Your task to perform on an android device: open app "Skype" Image 0: 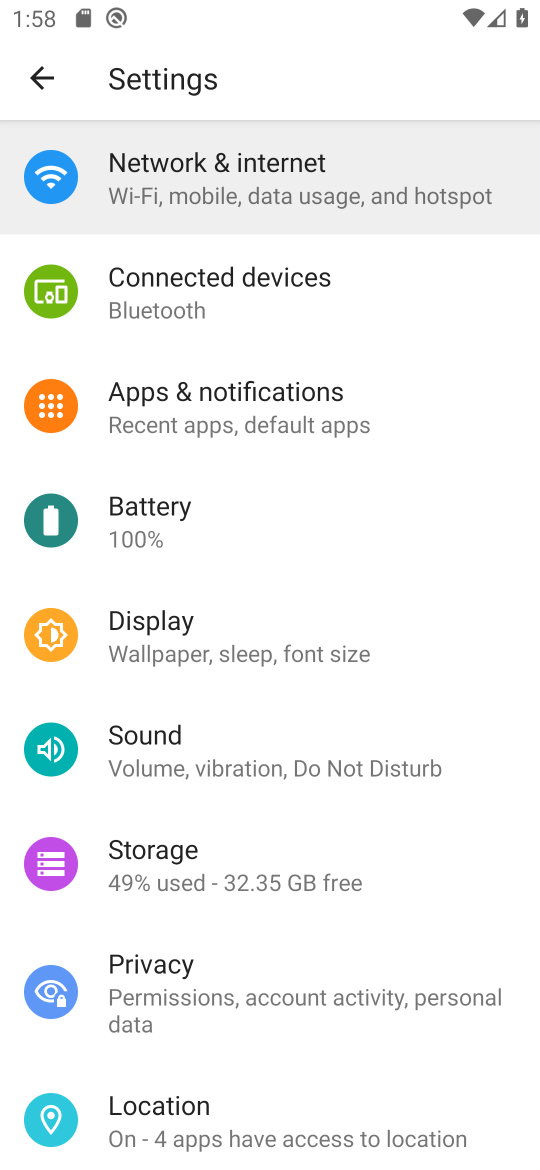
Step 0: press home button
Your task to perform on an android device: open app "Skype" Image 1: 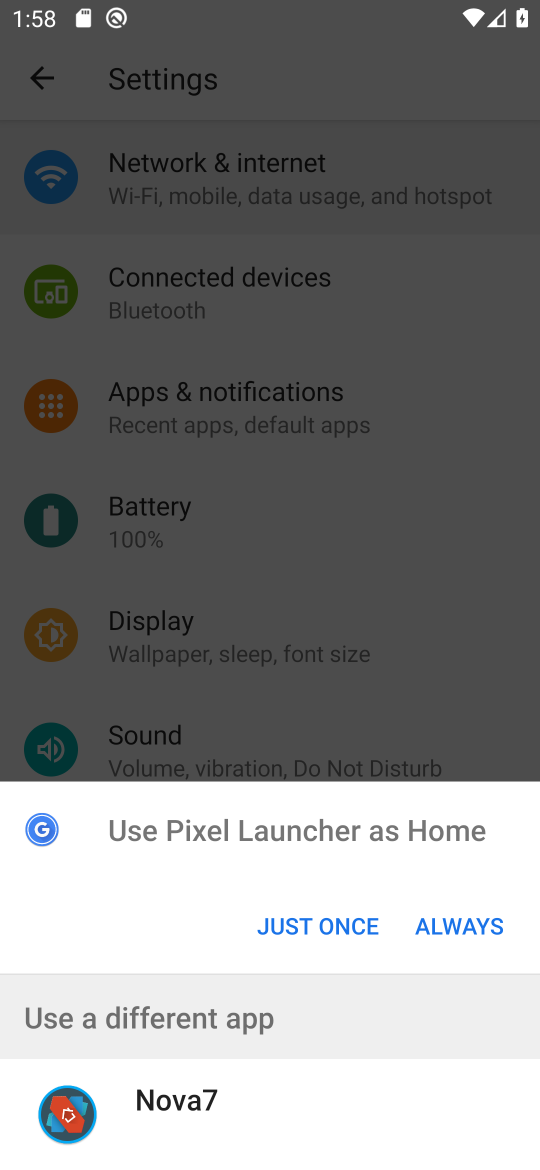
Step 1: click (320, 922)
Your task to perform on an android device: open app "Skype" Image 2: 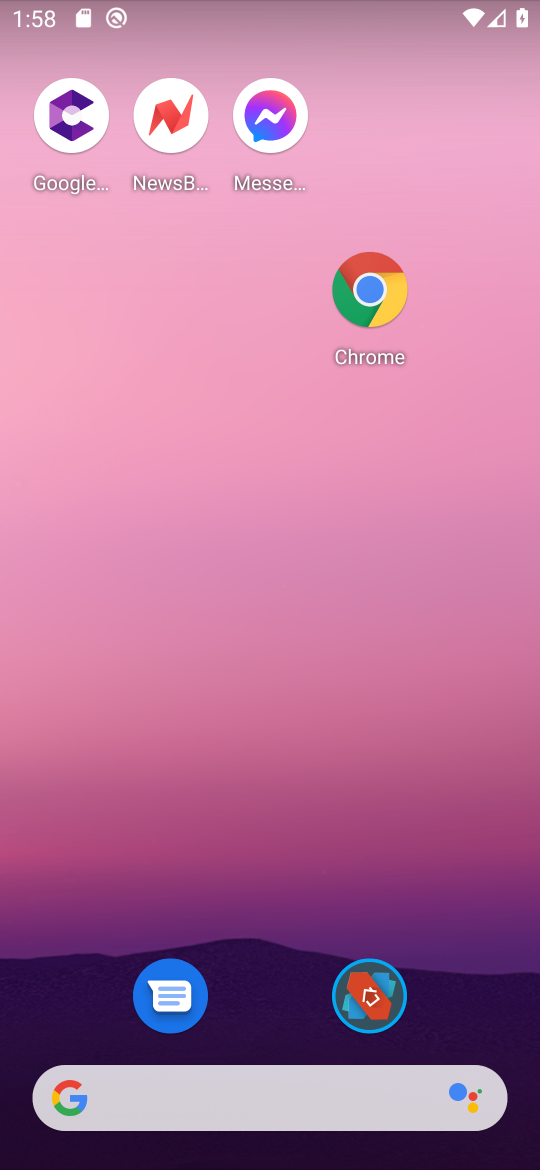
Step 2: drag from (126, 911) to (168, 121)
Your task to perform on an android device: open app "Skype" Image 3: 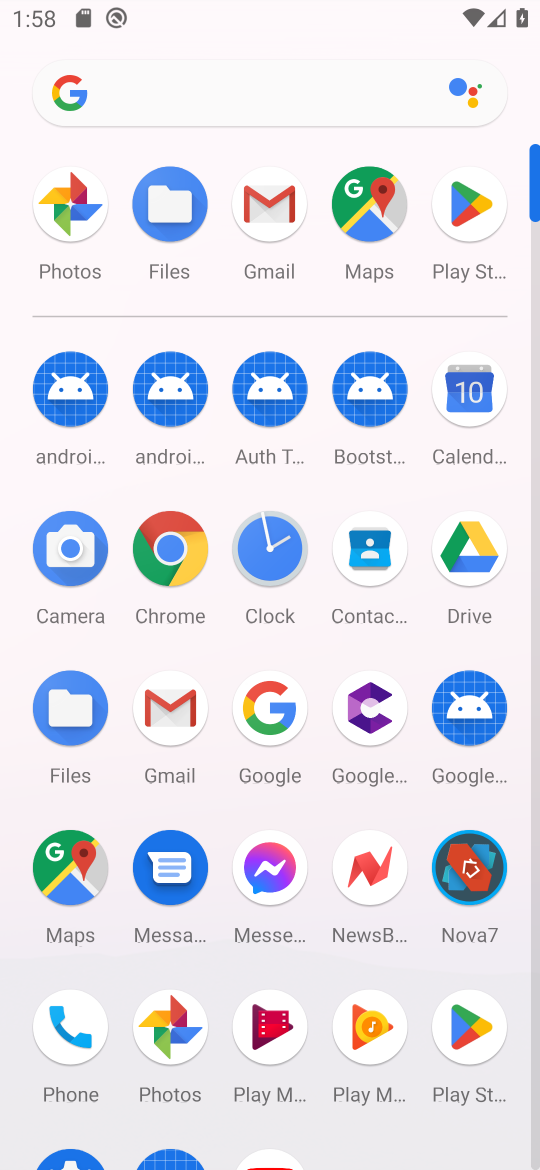
Step 3: click (470, 206)
Your task to perform on an android device: open app "Skype" Image 4: 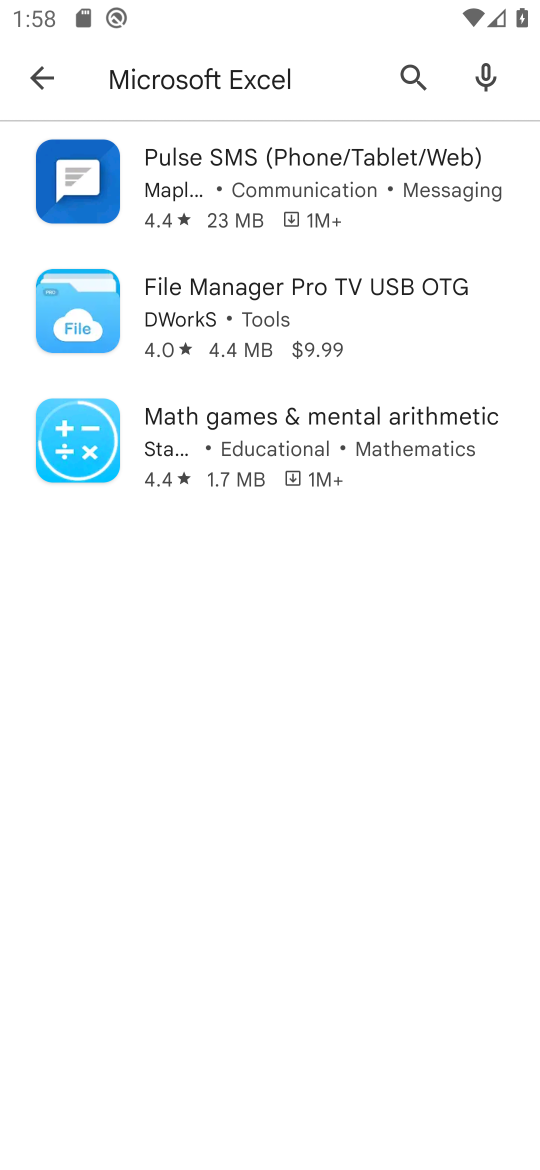
Step 4: press back button
Your task to perform on an android device: open app "Skype" Image 5: 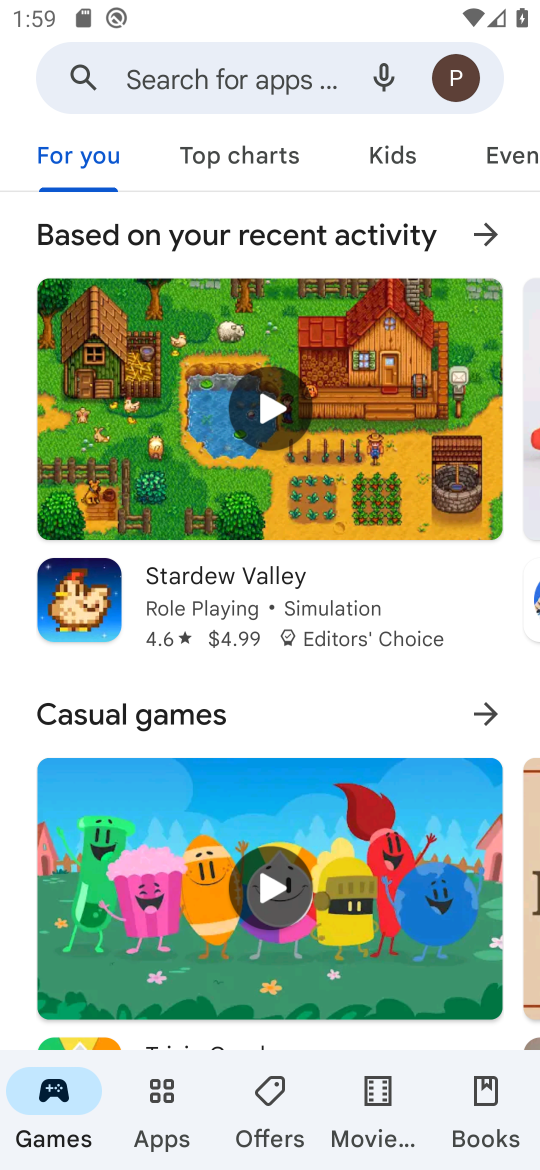
Step 5: click (251, 83)
Your task to perform on an android device: open app "Skype" Image 6: 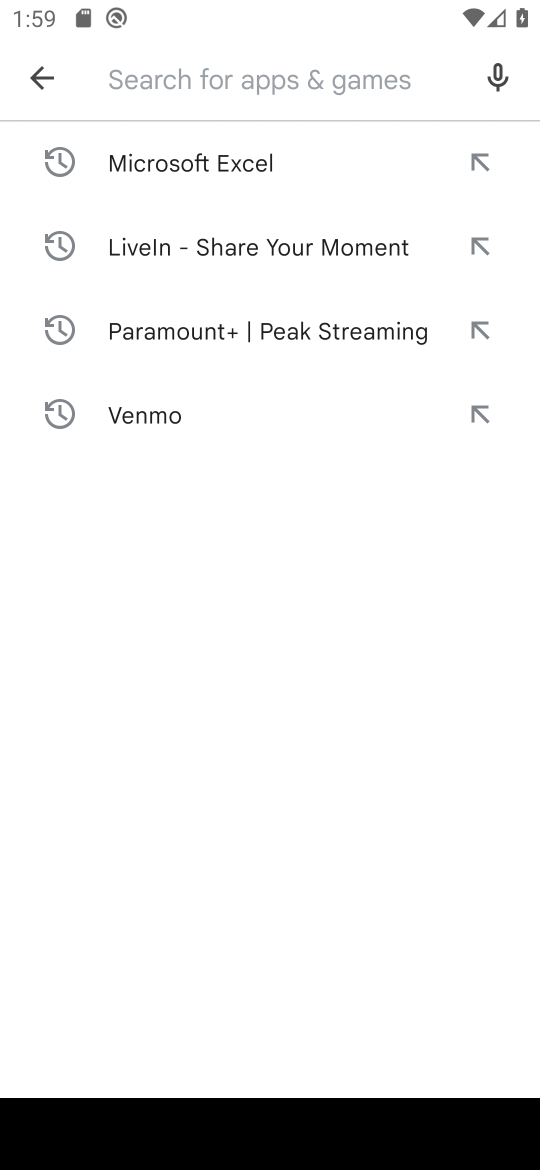
Step 6: type "Skype"
Your task to perform on an android device: open app "Skype" Image 7: 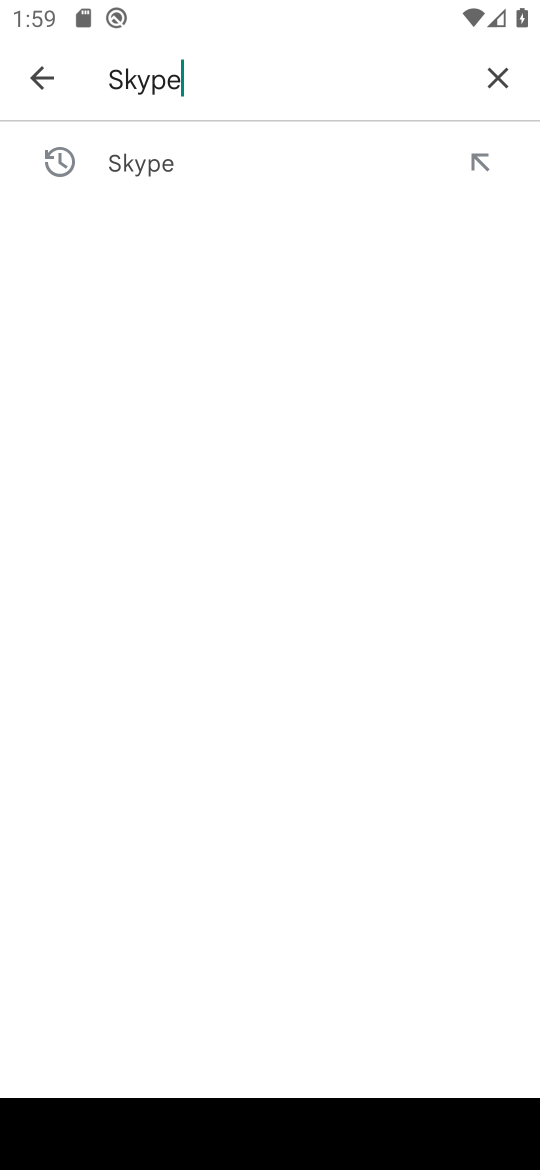
Step 7: click (81, 172)
Your task to perform on an android device: open app "Skype" Image 8: 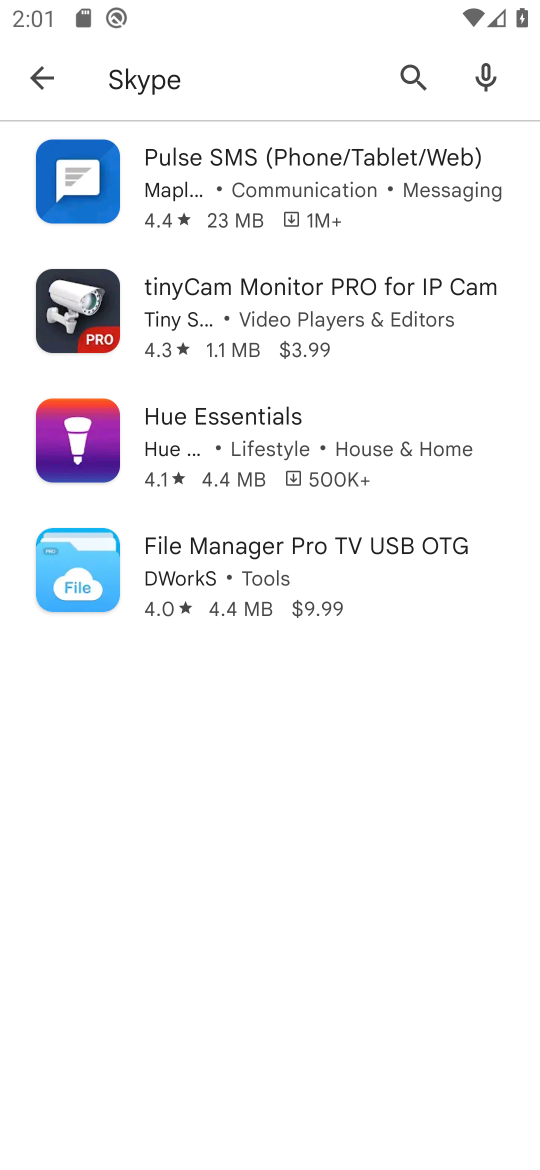
Step 8: task complete